Your task to perform on an android device: Open Android settings Image 0: 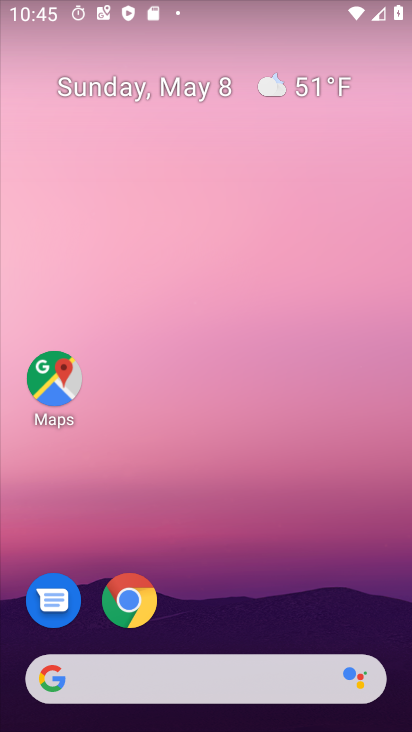
Step 0: drag from (201, 507) to (182, 7)
Your task to perform on an android device: Open Android settings Image 1: 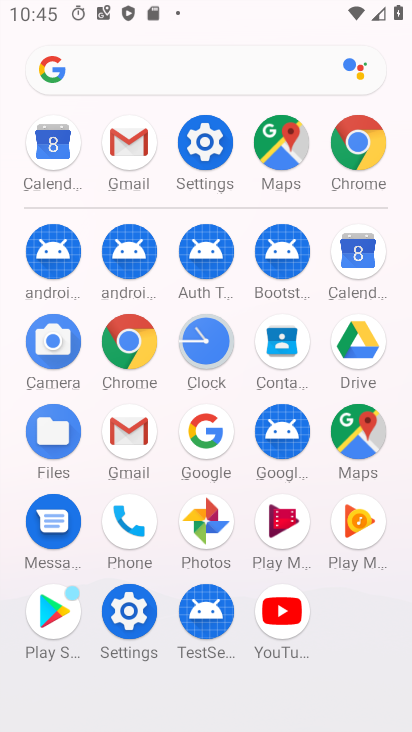
Step 1: drag from (1, 454) to (2, 235)
Your task to perform on an android device: Open Android settings Image 2: 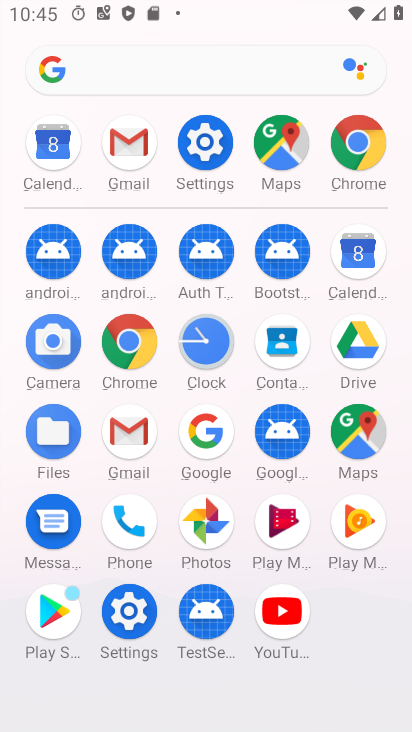
Step 2: click (129, 602)
Your task to perform on an android device: Open Android settings Image 3: 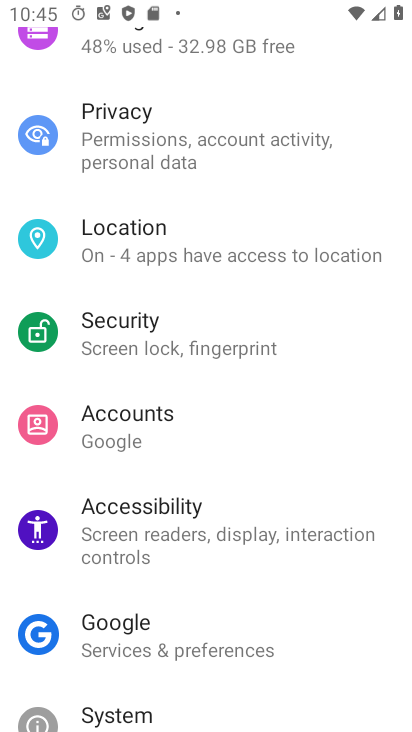
Step 3: task complete